Your task to perform on an android device: Open Google Chrome and click the shortcut for Amazon.com Image 0: 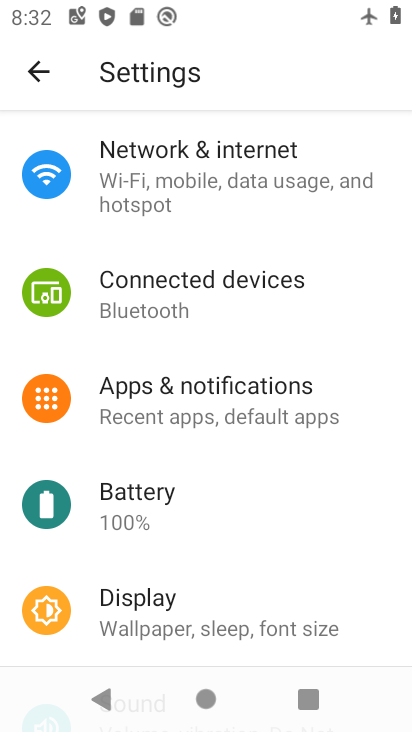
Step 0: press home button
Your task to perform on an android device: Open Google Chrome and click the shortcut for Amazon.com Image 1: 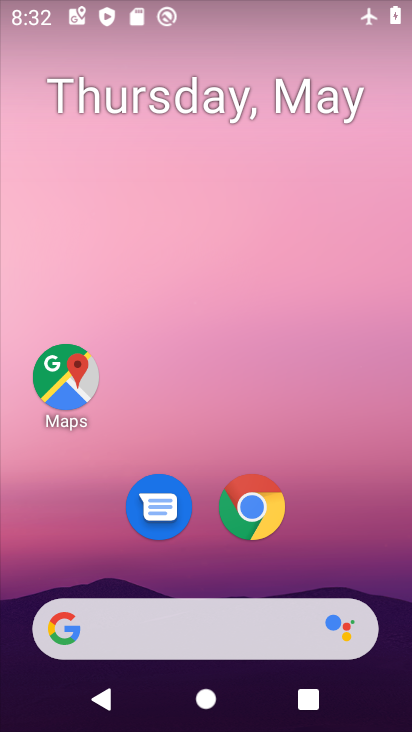
Step 1: click (241, 501)
Your task to perform on an android device: Open Google Chrome and click the shortcut for Amazon.com Image 2: 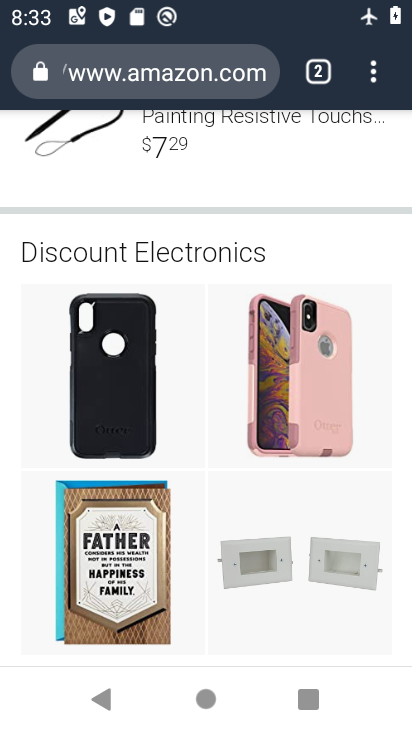
Step 2: click (322, 77)
Your task to perform on an android device: Open Google Chrome and click the shortcut for Amazon.com Image 3: 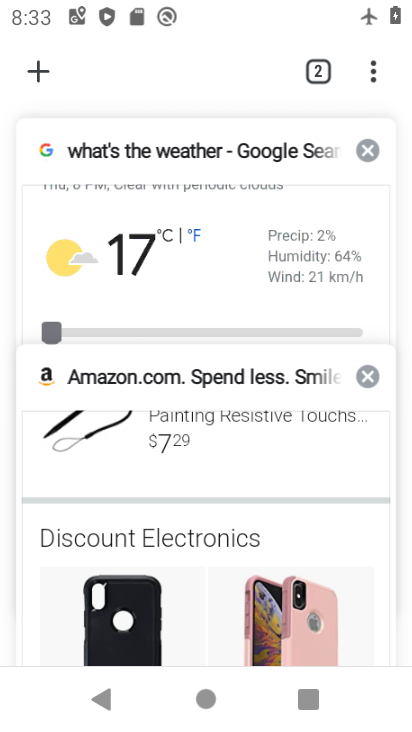
Step 3: click (36, 72)
Your task to perform on an android device: Open Google Chrome and click the shortcut for Amazon.com Image 4: 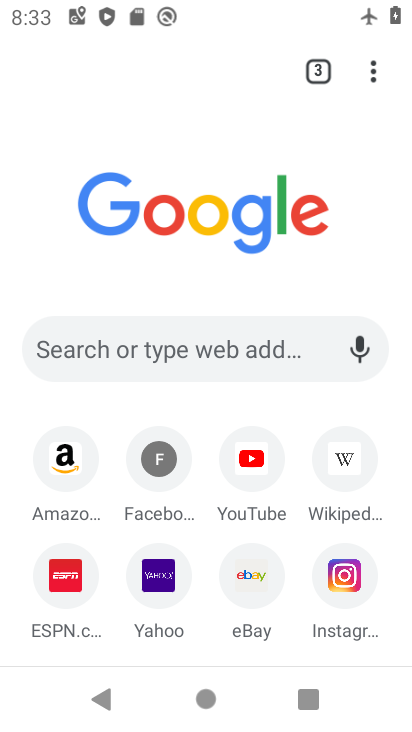
Step 4: click (56, 471)
Your task to perform on an android device: Open Google Chrome and click the shortcut for Amazon.com Image 5: 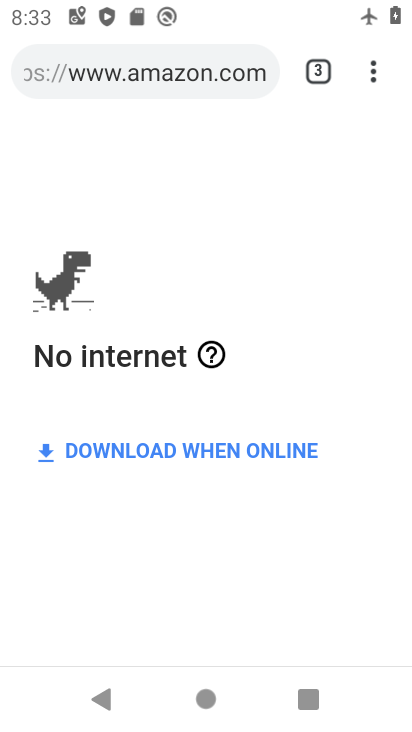
Step 5: task complete